Your task to perform on an android device: turn on improve location accuracy Image 0: 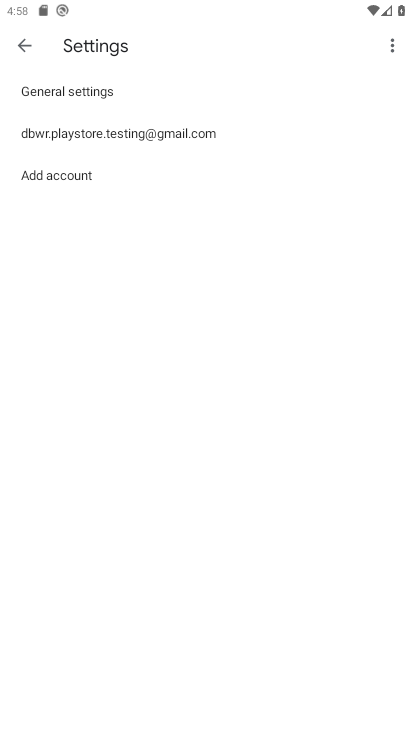
Step 0: press home button
Your task to perform on an android device: turn on improve location accuracy Image 1: 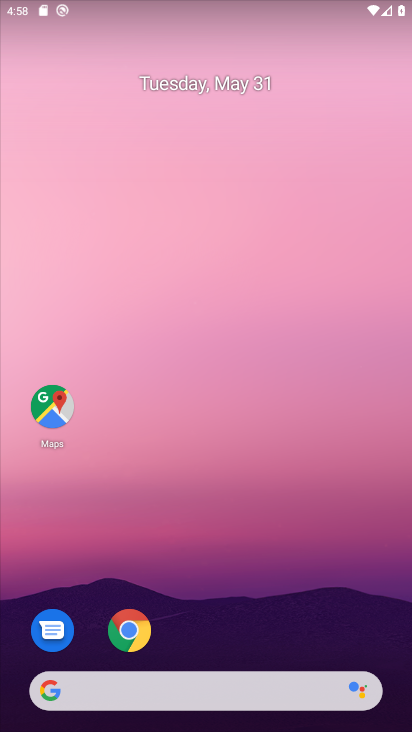
Step 1: drag from (221, 656) to (165, 27)
Your task to perform on an android device: turn on improve location accuracy Image 2: 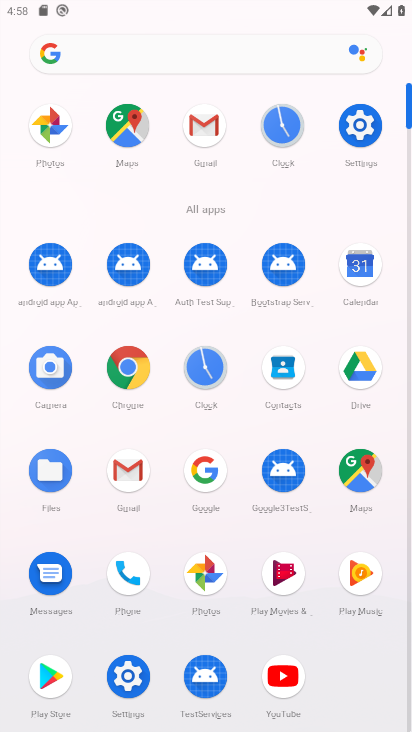
Step 2: click (373, 127)
Your task to perform on an android device: turn on improve location accuracy Image 3: 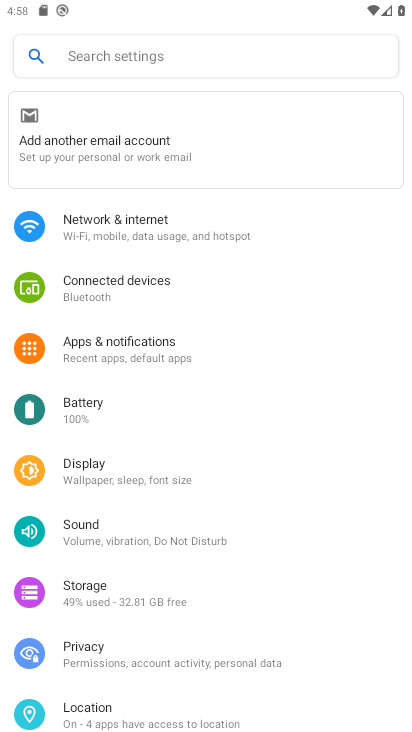
Step 3: click (110, 699)
Your task to perform on an android device: turn on improve location accuracy Image 4: 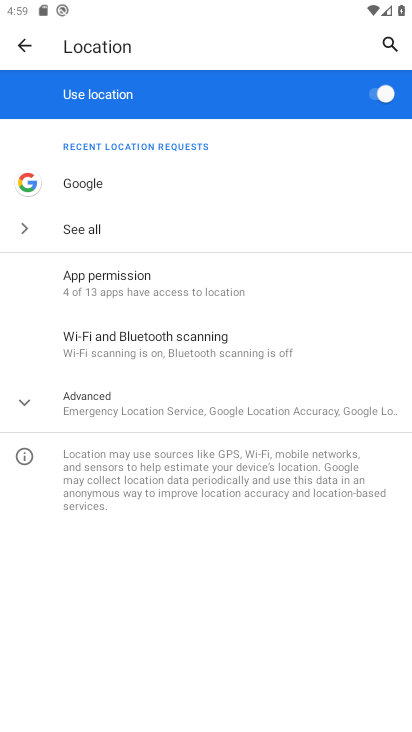
Step 4: click (125, 415)
Your task to perform on an android device: turn on improve location accuracy Image 5: 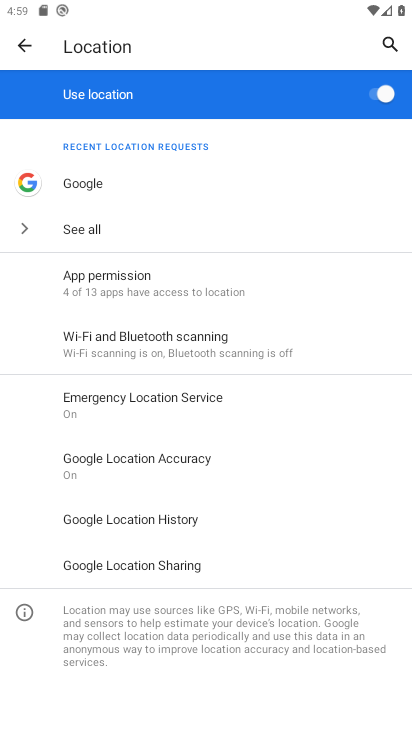
Step 5: task complete